Your task to perform on an android device: turn off notifications in google photos Image 0: 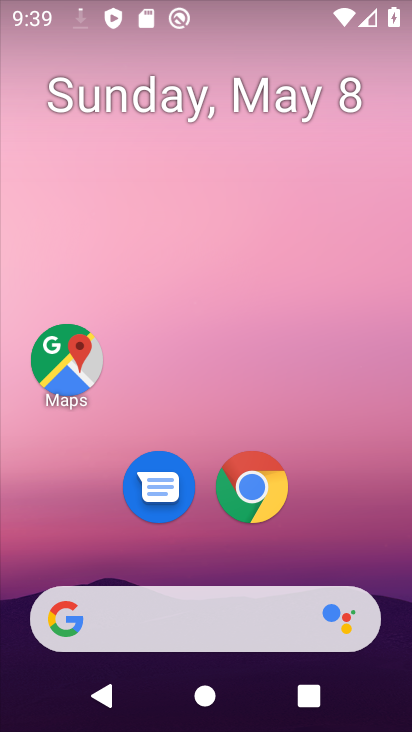
Step 0: drag from (358, 531) to (337, 169)
Your task to perform on an android device: turn off notifications in google photos Image 1: 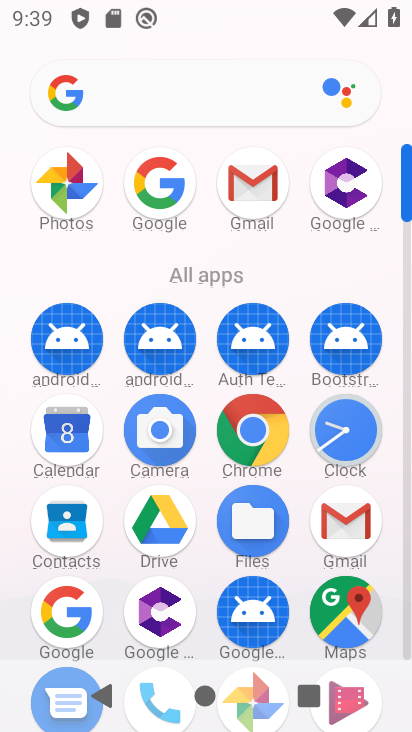
Step 1: click (80, 188)
Your task to perform on an android device: turn off notifications in google photos Image 2: 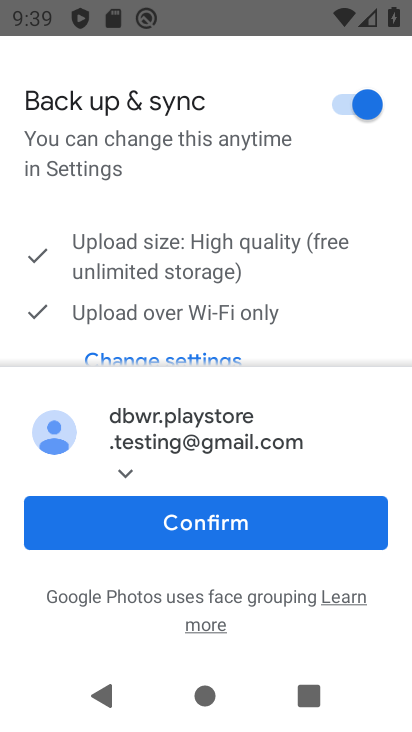
Step 2: click (229, 534)
Your task to perform on an android device: turn off notifications in google photos Image 3: 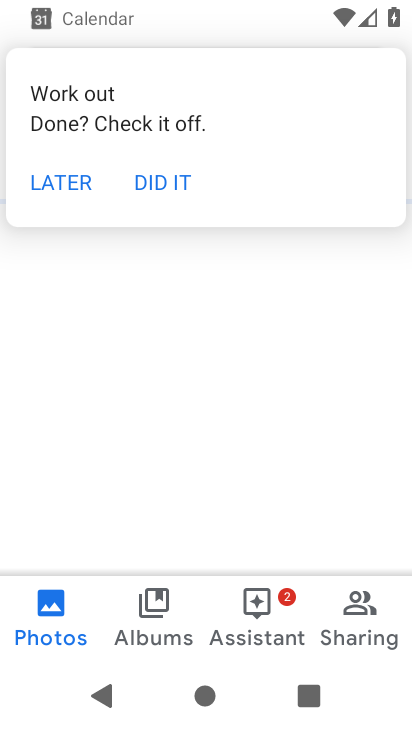
Step 3: click (59, 76)
Your task to perform on an android device: turn off notifications in google photos Image 4: 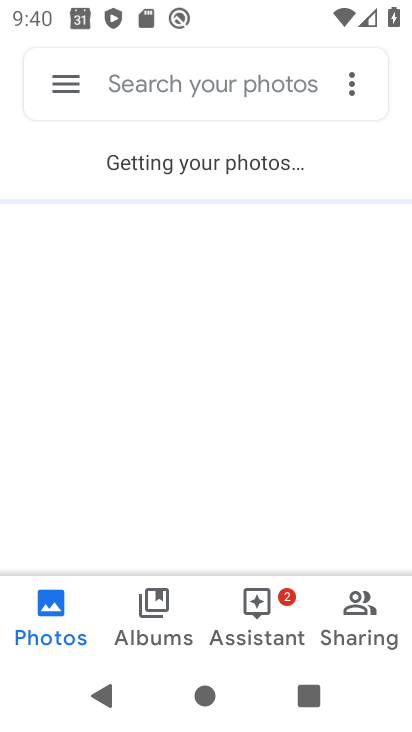
Step 4: click (81, 80)
Your task to perform on an android device: turn off notifications in google photos Image 5: 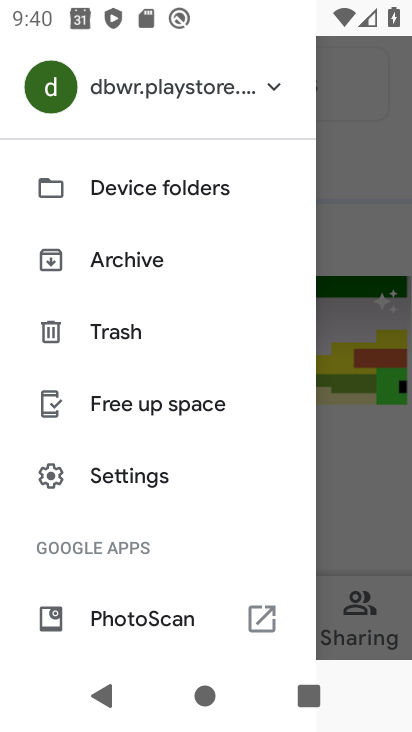
Step 5: click (125, 471)
Your task to perform on an android device: turn off notifications in google photos Image 6: 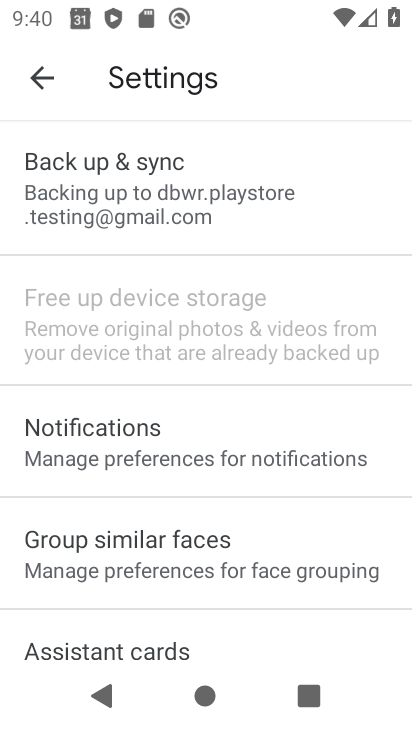
Step 6: drag from (305, 378) to (295, 76)
Your task to perform on an android device: turn off notifications in google photos Image 7: 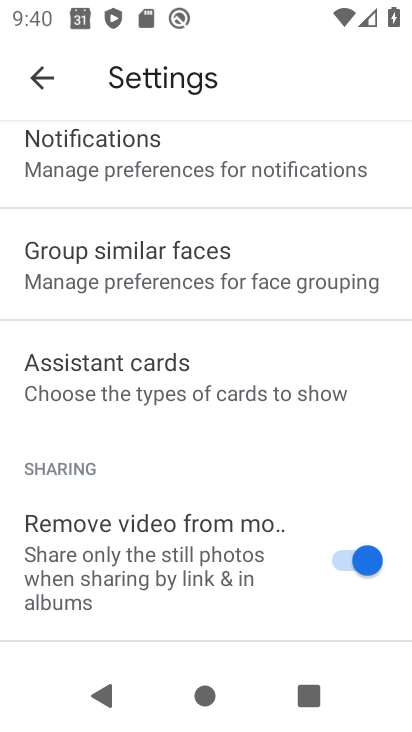
Step 7: click (102, 155)
Your task to perform on an android device: turn off notifications in google photos Image 8: 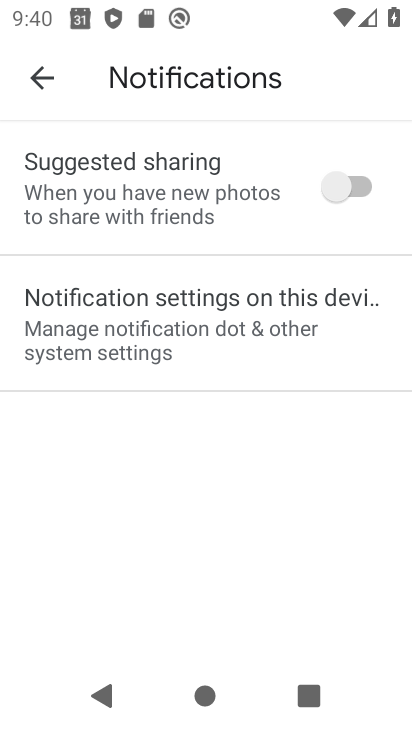
Step 8: click (238, 308)
Your task to perform on an android device: turn off notifications in google photos Image 9: 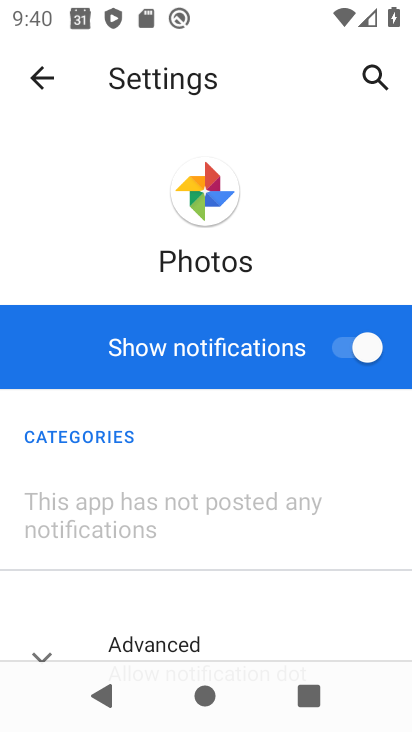
Step 9: click (337, 343)
Your task to perform on an android device: turn off notifications in google photos Image 10: 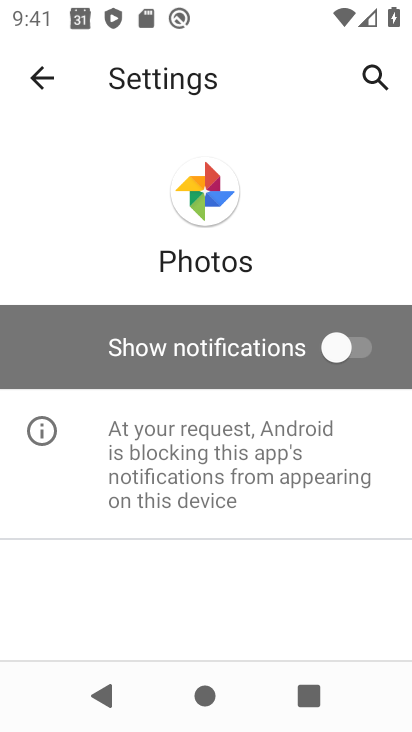
Step 10: task complete